Your task to perform on an android device: set the timer Image 0: 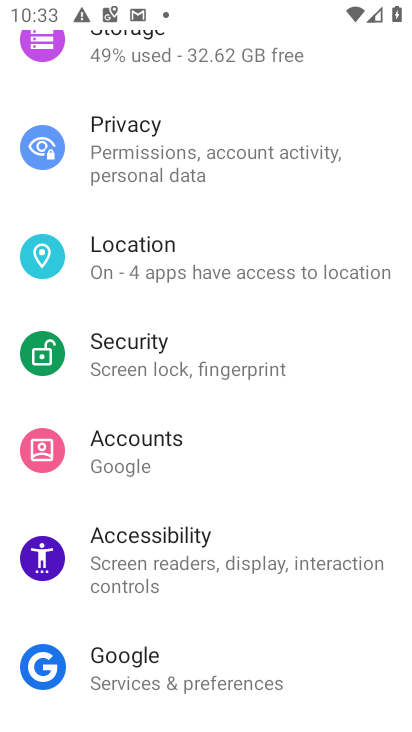
Step 0: press home button
Your task to perform on an android device: set the timer Image 1: 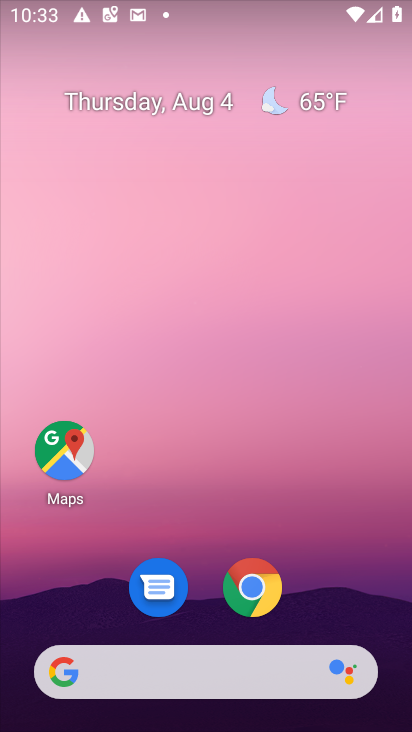
Step 1: drag from (216, 677) to (218, 219)
Your task to perform on an android device: set the timer Image 2: 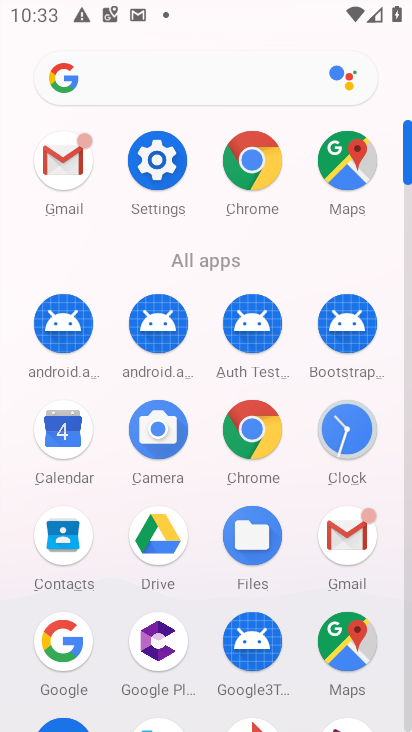
Step 2: click (349, 423)
Your task to perform on an android device: set the timer Image 3: 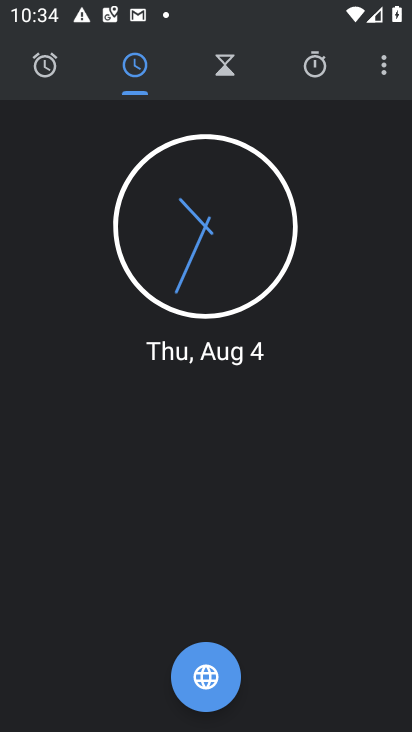
Step 3: click (227, 71)
Your task to perform on an android device: set the timer Image 4: 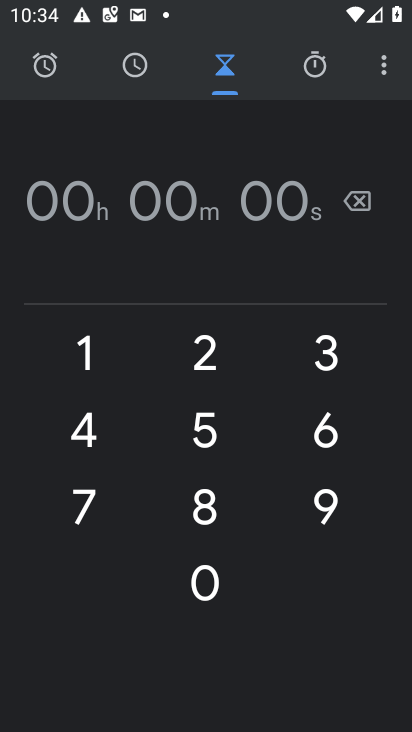
Step 4: click (175, 218)
Your task to perform on an android device: set the timer Image 5: 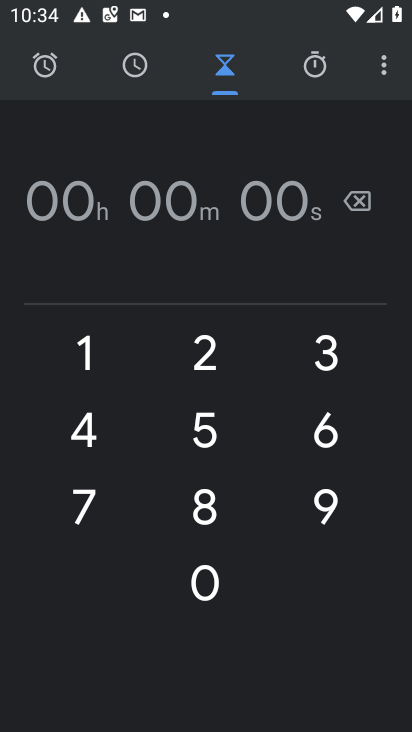
Step 5: type "9779979797 "
Your task to perform on an android device: set the timer Image 6: 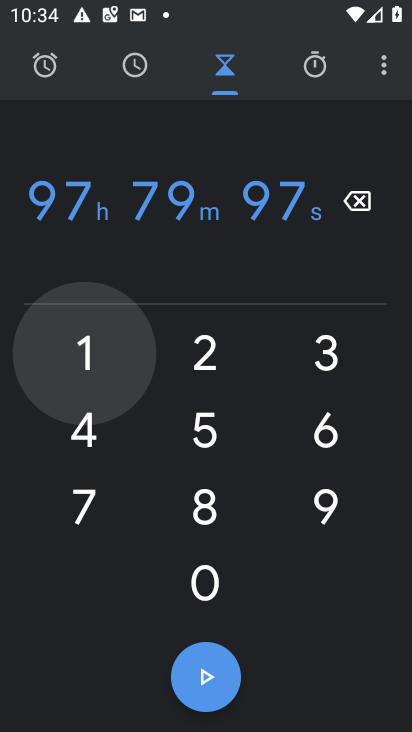
Step 6: task complete